Your task to perform on an android device: Clear the cart on bestbuy. Add beats solo 3 to the cart on bestbuy Image 0: 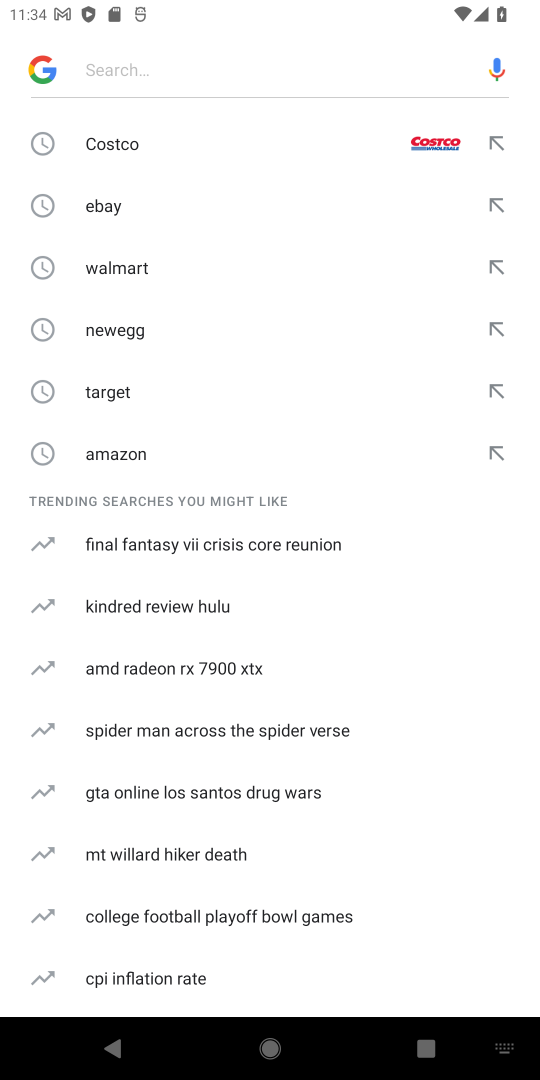
Step 0: click (189, 127)
Your task to perform on an android device: Clear the cart on bestbuy. Add beats solo 3 to the cart on bestbuy Image 1: 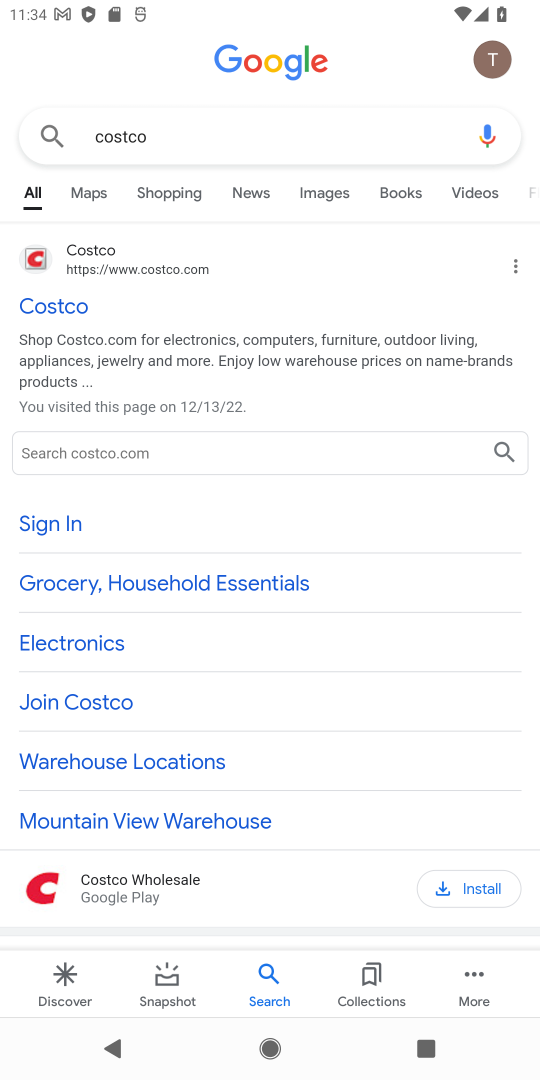
Step 1: click (30, 287)
Your task to perform on an android device: Clear the cart on bestbuy. Add beats solo 3 to the cart on bestbuy Image 2: 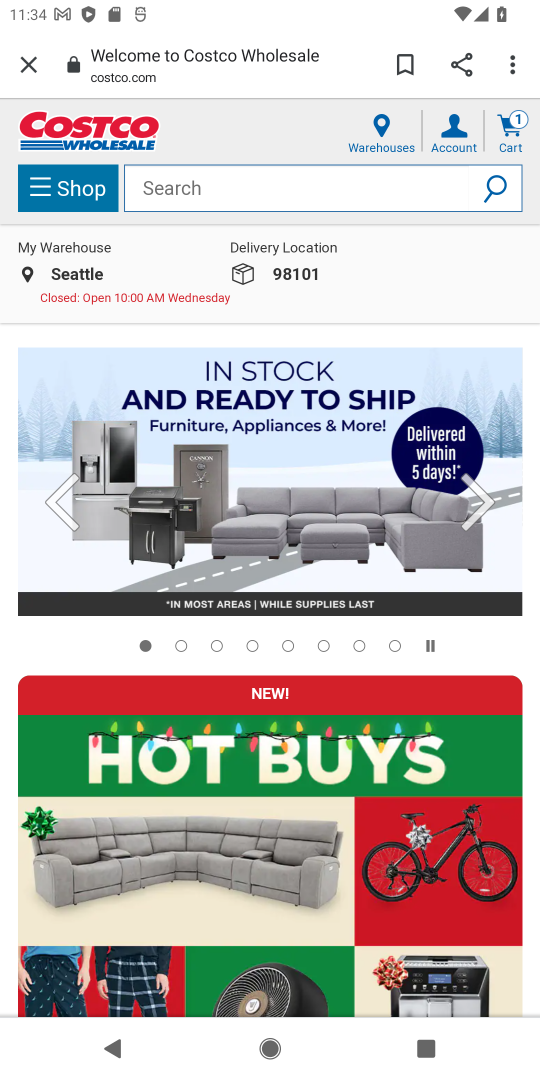
Step 2: click (216, 201)
Your task to perform on an android device: Clear the cart on bestbuy. Add beats solo 3 to the cart on bestbuy Image 3: 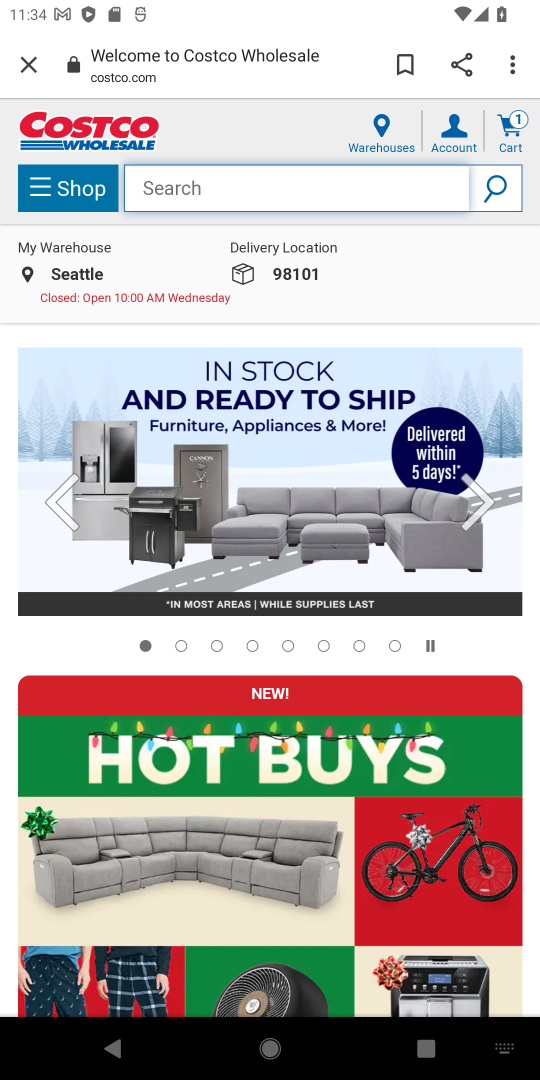
Step 3: click (219, 37)
Your task to perform on an android device: Clear the cart on bestbuy. Add beats solo 3 to the cart on bestbuy Image 4: 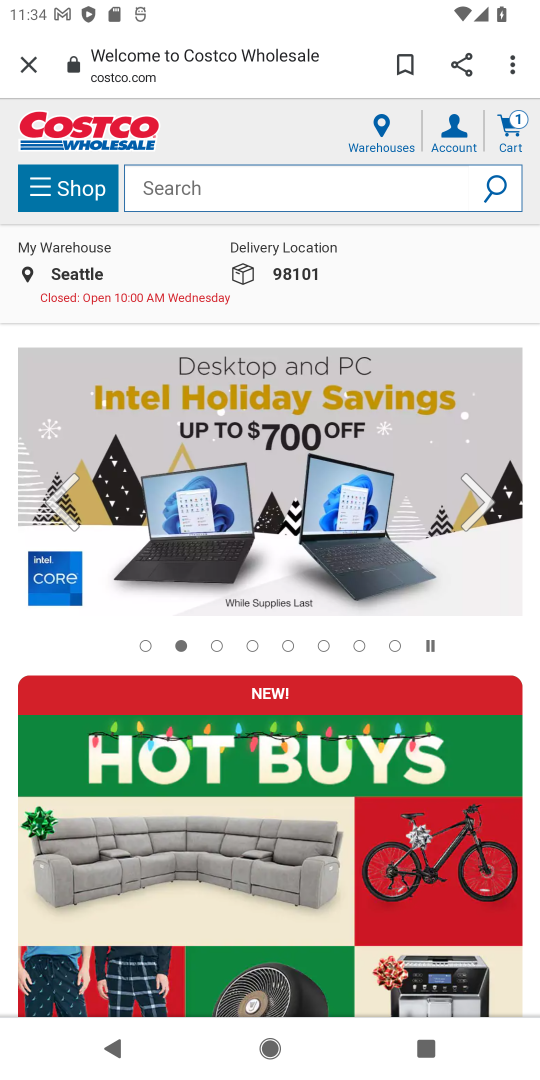
Step 4: click (231, 52)
Your task to perform on an android device: Clear the cart on bestbuy. Add beats solo 3 to the cart on bestbuy Image 5: 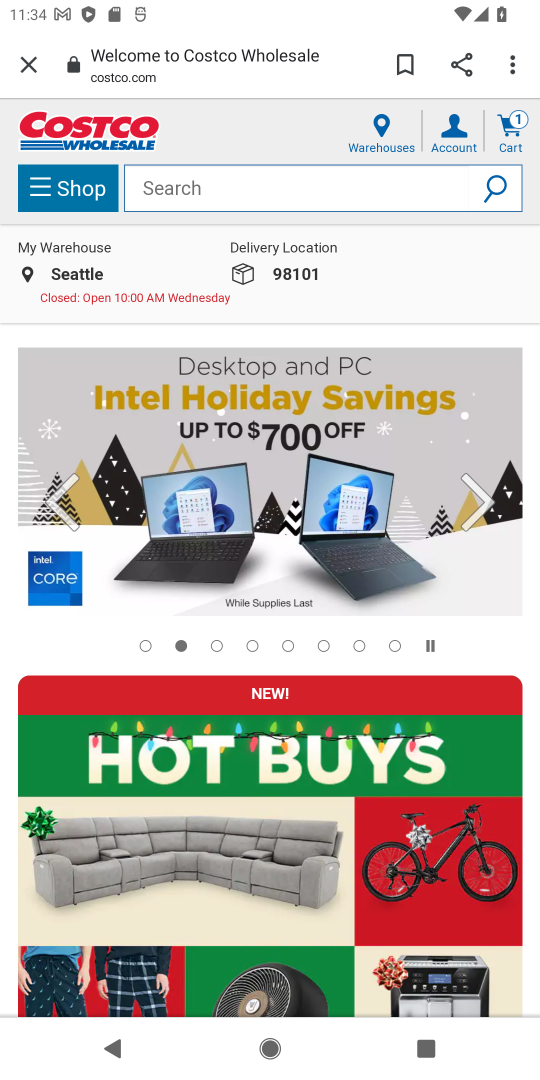
Step 5: click (20, 63)
Your task to perform on an android device: Clear the cart on bestbuy. Add beats solo 3 to the cart on bestbuy Image 6: 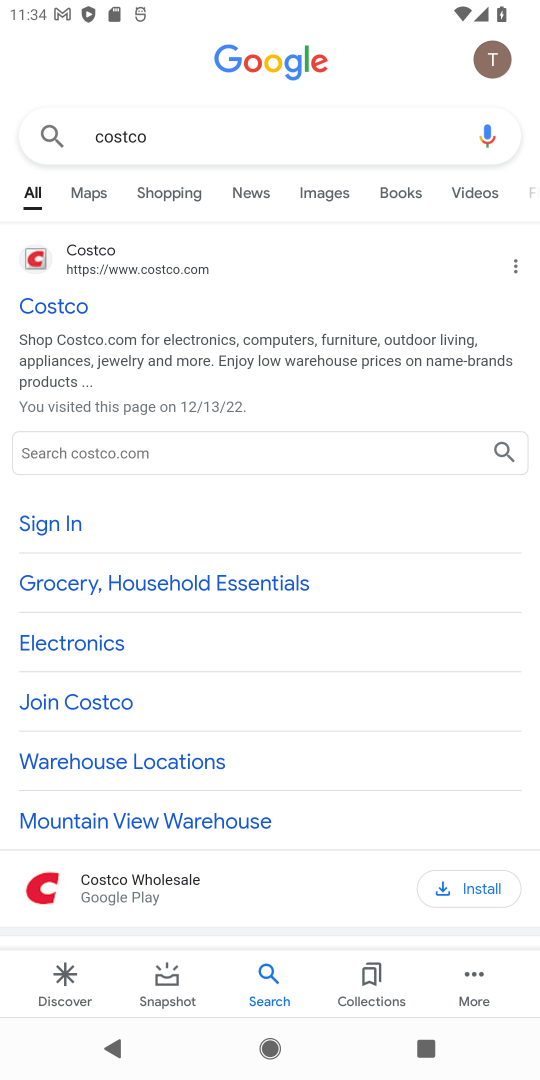
Step 6: click (200, 128)
Your task to perform on an android device: Clear the cart on bestbuy. Add beats solo 3 to the cart on bestbuy Image 7: 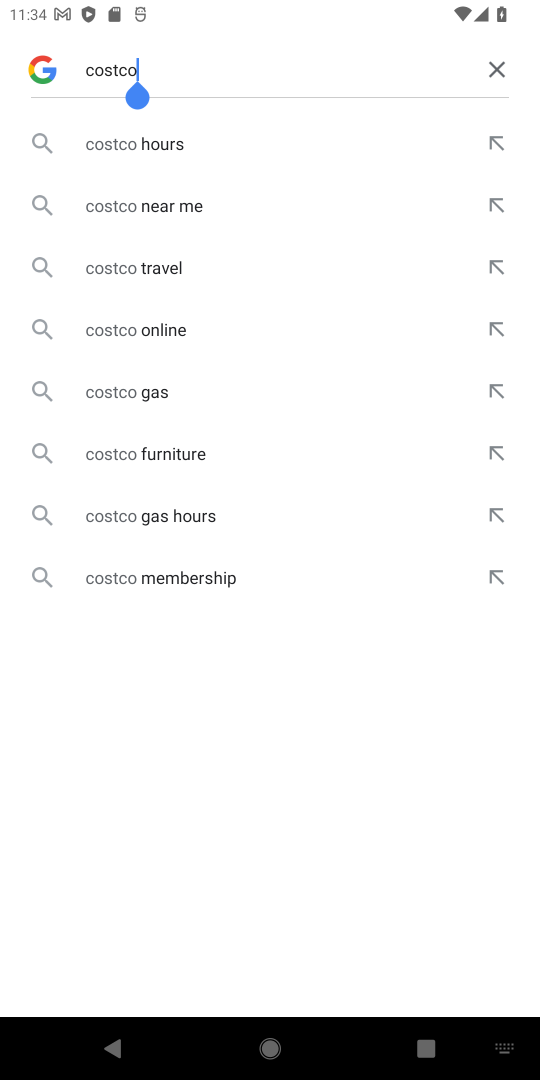
Step 7: click (499, 61)
Your task to perform on an android device: Clear the cart on bestbuy. Add beats solo 3 to the cart on bestbuy Image 8: 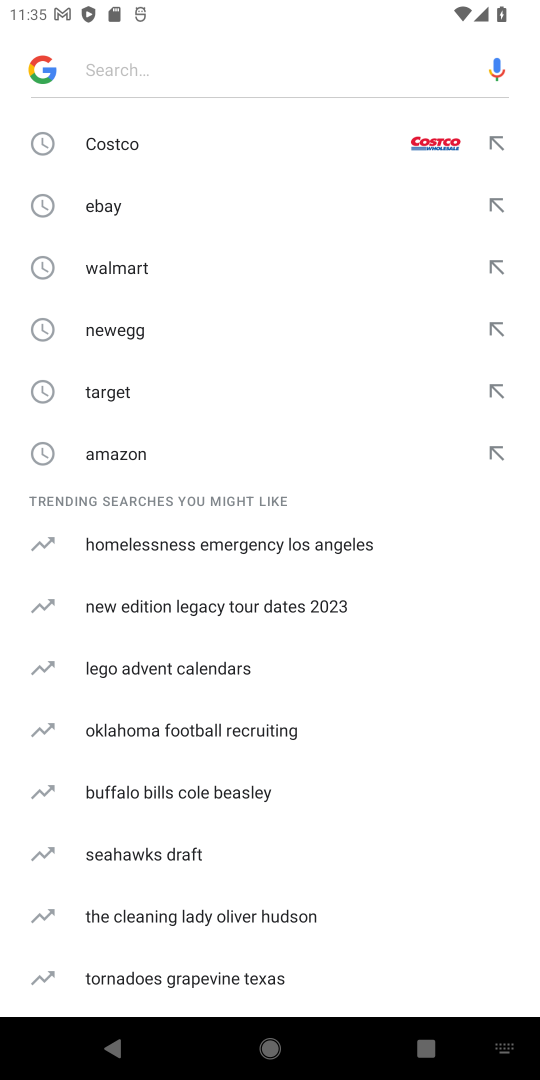
Step 8: type "bestbuy"
Your task to perform on an android device: Clear the cart on bestbuy. Add beats solo 3 to the cart on bestbuy Image 9: 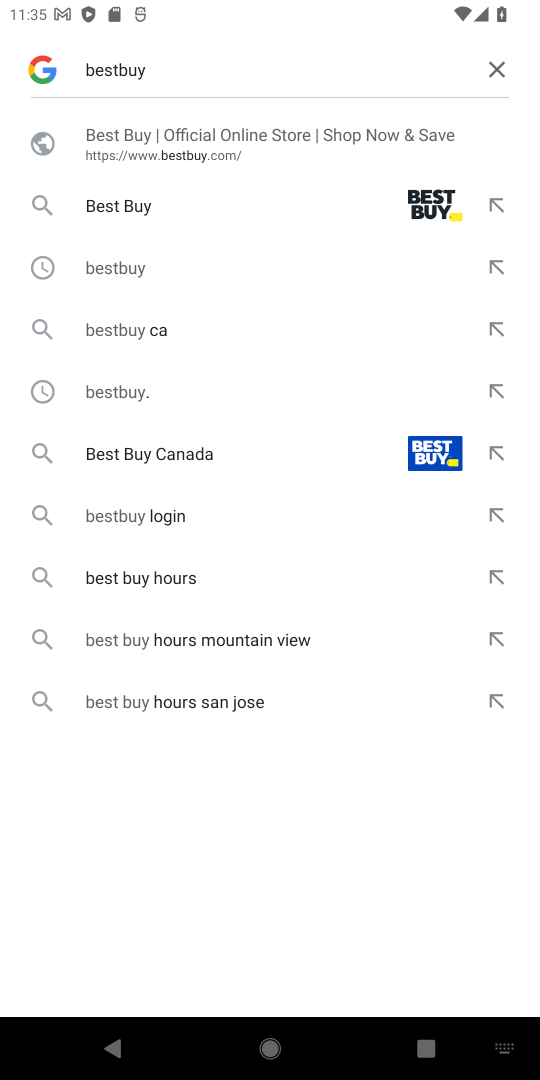
Step 9: click (154, 160)
Your task to perform on an android device: Clear the cart on bestbuy. Add beats solo 3 to the cart on bestbuy Image 10: 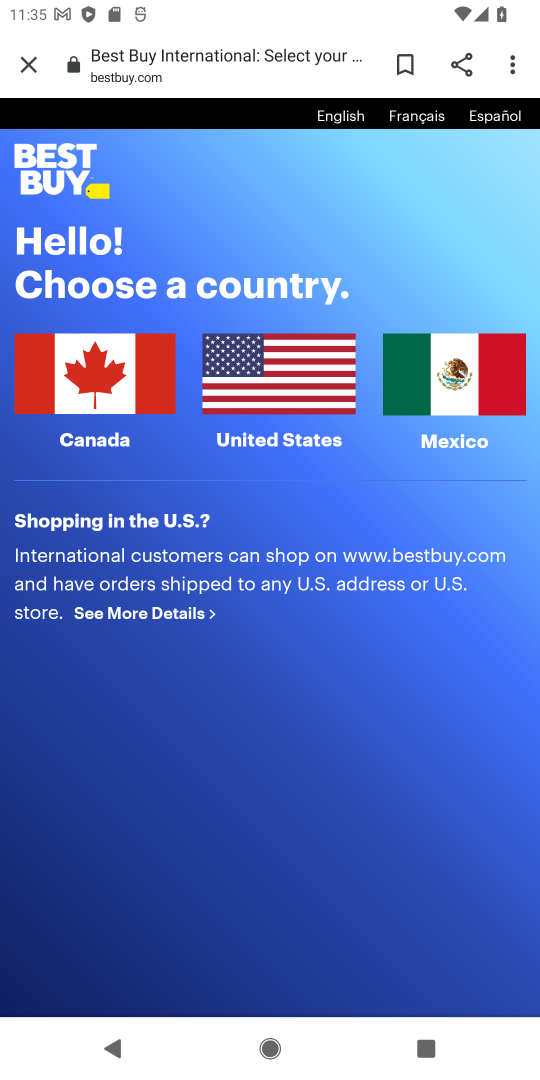
Step 10: click (68, 416)
Your task to perform on an android device: Clear the cart on bestbuy. Add beats solo 3 to the cart on bestbuy Image 11: 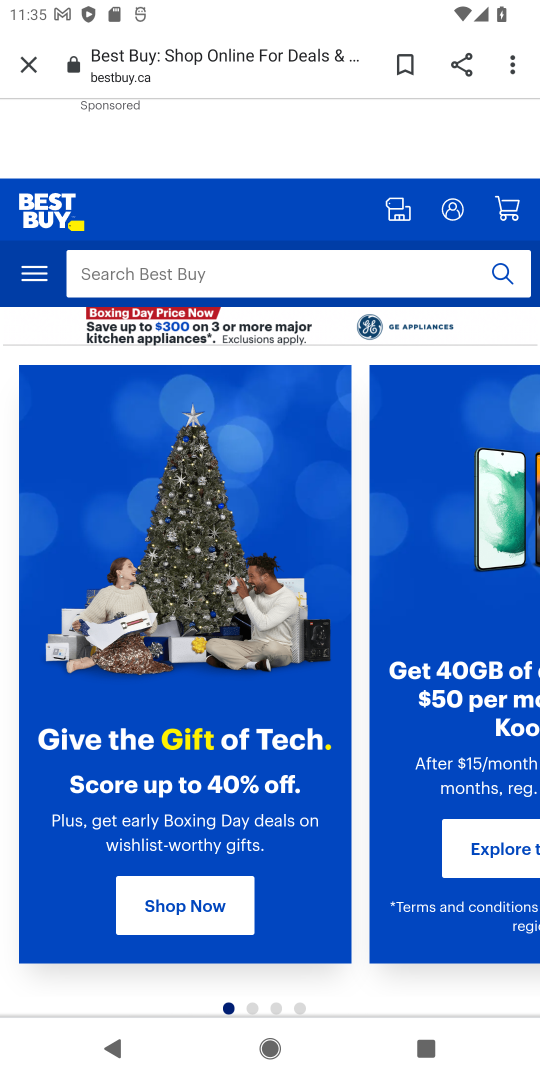
Step 11: click (152, 269)
Your task to perform on an android device: Clear the cart on bestbuy. Add beats solo 3 to the cart on bestbuy Image 12: 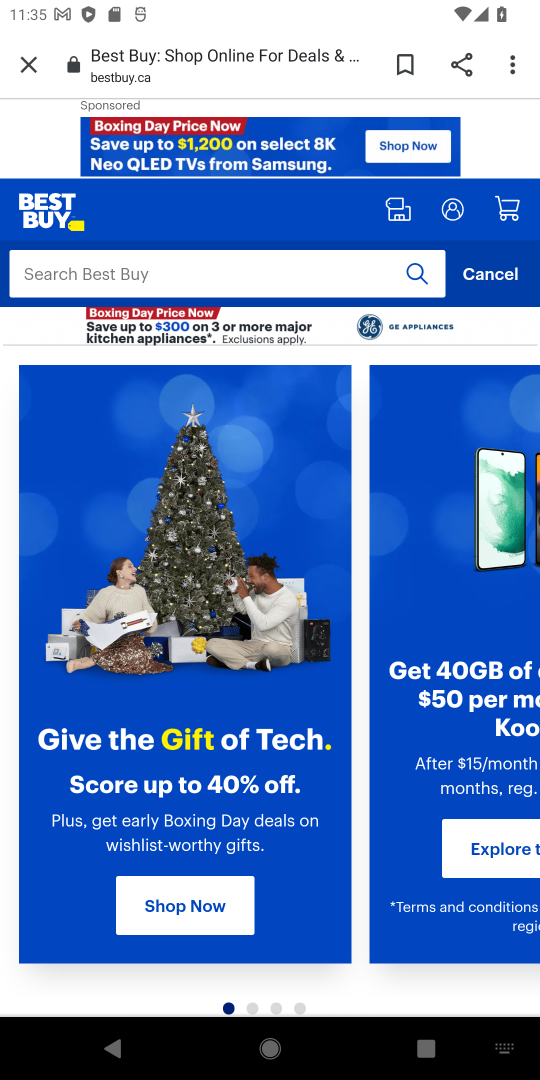
Step 12: click (499, 210)
Your task to perform on an android device: Clear the cart on bestbuy. Add beats solo 3 to the cart on bestbuy Image 13: 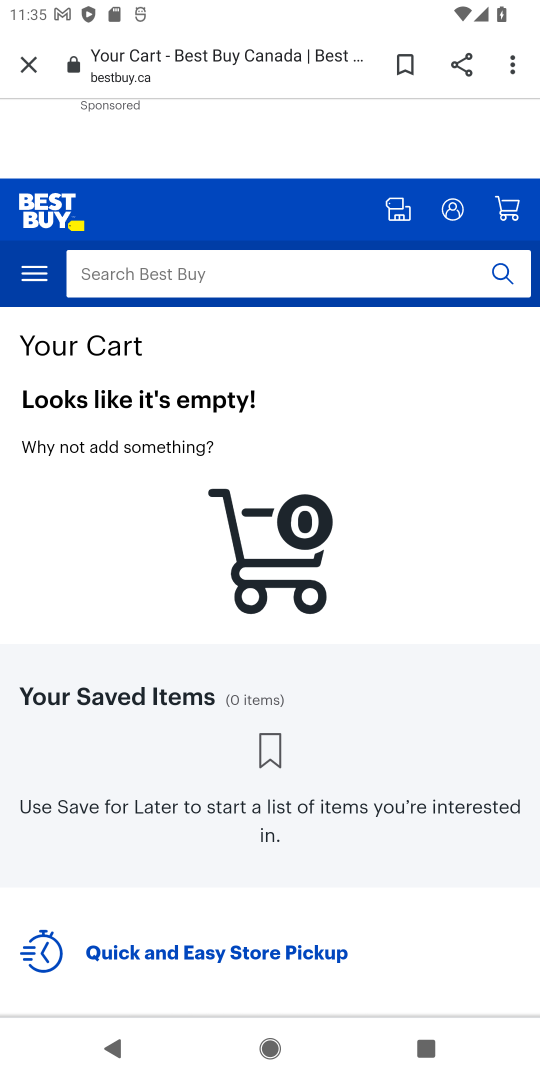
Step 13: click (341, 270)
Your task to perform on an android device: Clear the cart on bestbuy. Add beats solo 3 to the cart on bestbuy Image 14: 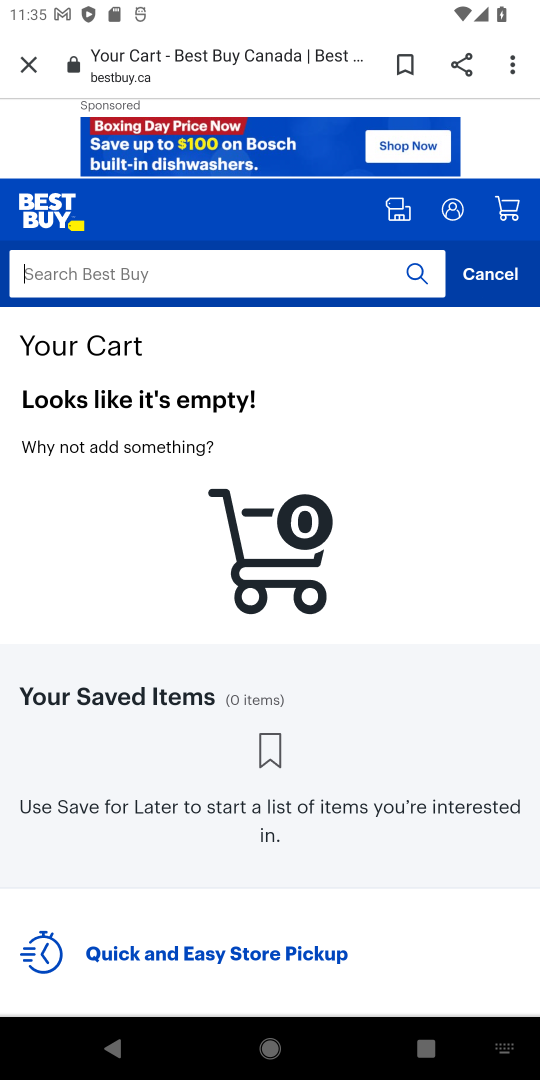
Step 14: type "beatsolo 3"
Your task to perform on an android device: Clear the cart on bestbuy. Add beats solo 3 to the cart on bestbuy Image 15: 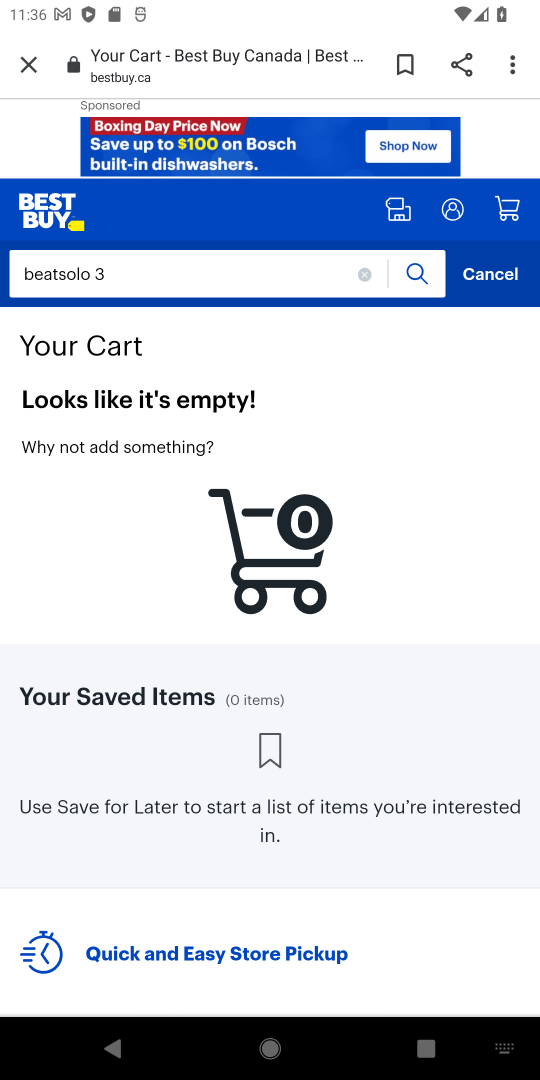
Step 15: click (402, 284)
Your task to perform on an android device: Clear the cart on bestbuy. Add beats solo 3 to the cart on bestbuy Image 16: 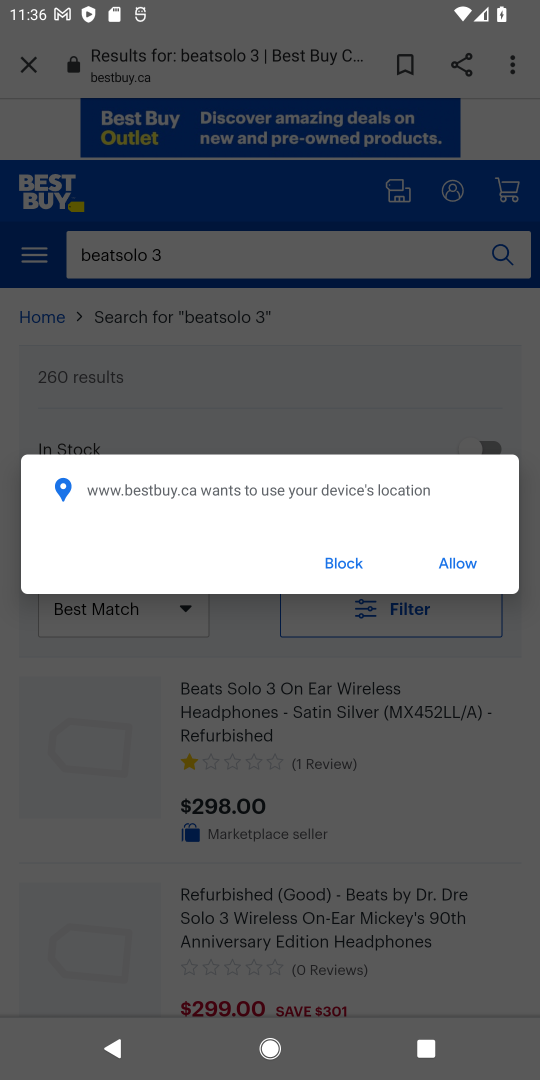
Step 16: click (436, 559)
Your task to perform on an android device: Clear the cart on bestbuy. Add beats solo 3 to the cart on bestbuy Image 17: 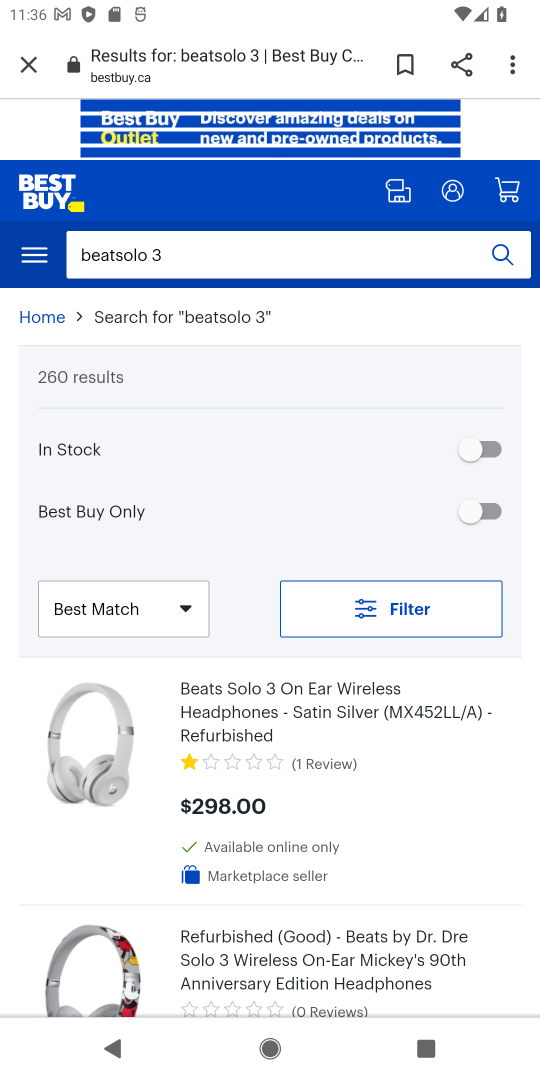
Step 17: task complete